Your task to perform on an android device: Open calendar and show me the fourth week of next month Image 0: 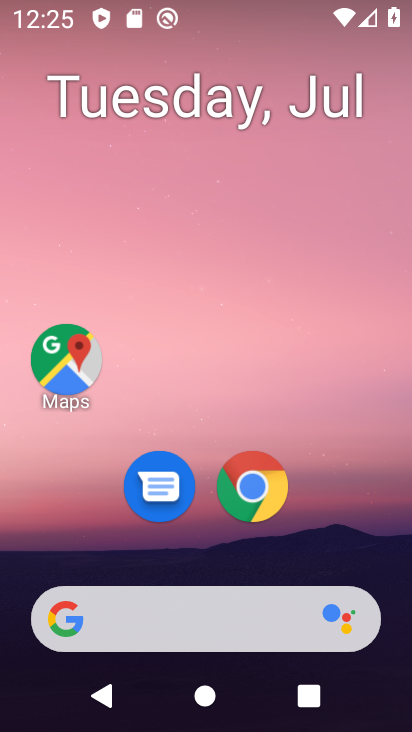
Step 0: drag from (344, 525) to (370, 74)
Your task to perform on an android device: Open calendar and show me the fourth week of next month Image 1: 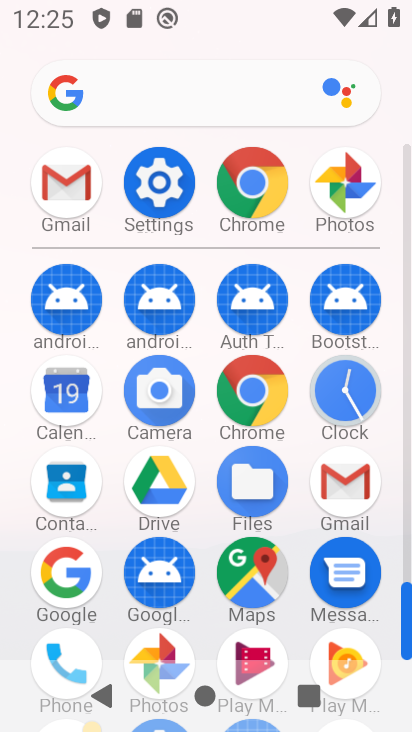
Step 1: click (74, 396)
Your task to perform on an android device: Open calendar and show me the fourth week of next month Image 2: 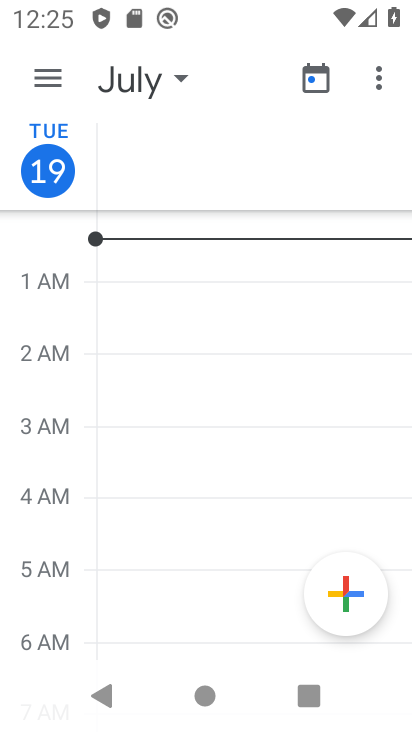
Step 2: click (177, 75)
Your task to perform on an android device: Open calendar and show me the fourth week of next month Image 3: 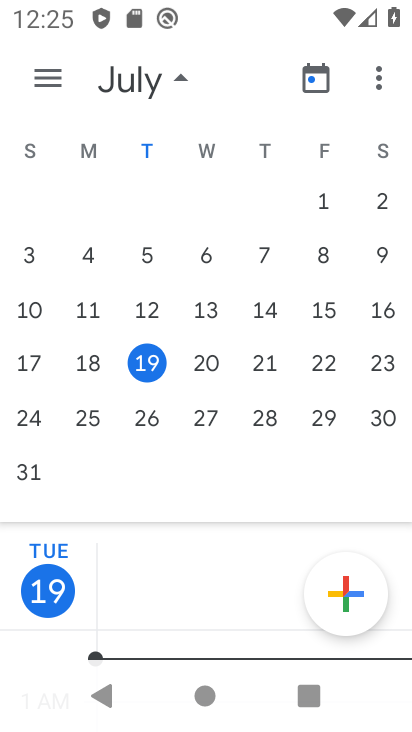
Step 3: drag from (402, 224) to (0, 220)
Your task to perform on an android device: Open calendar and show me the fourth week of next month Image 4: 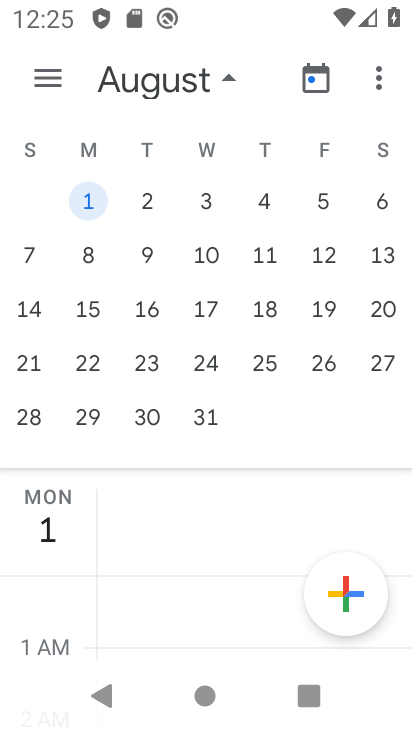
Step 4: click (93, 357)
Your task to perform on an android device: Open calendar and show me the fourth week of next month Image 5: 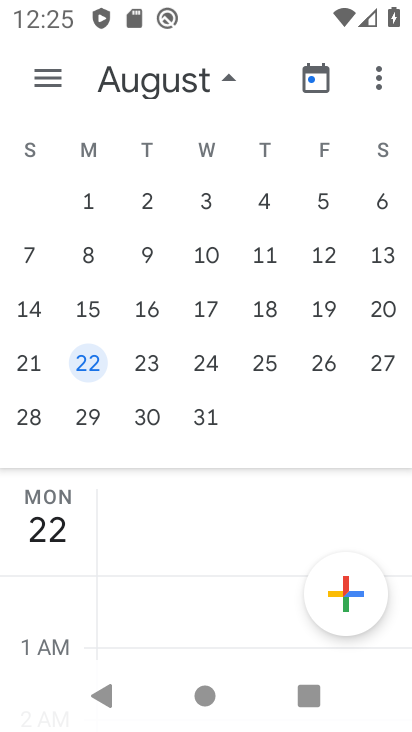
Step 5: task complete